Your task to perform on an android device: Turn on the flashlight Image 0: 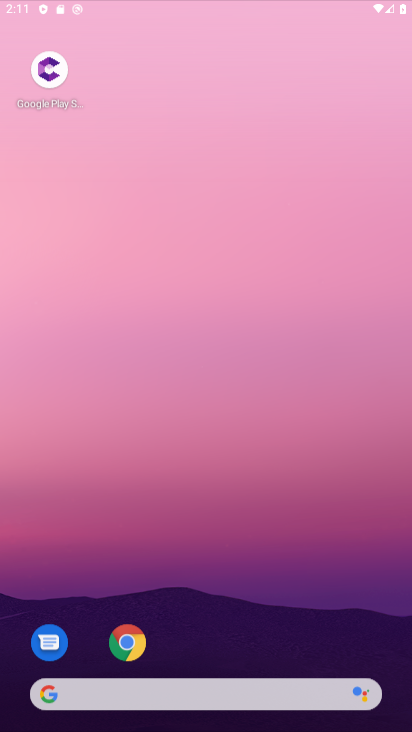
Step 0: press home button
Your task to perform on an android device: Turn on the flashlight Image 1: 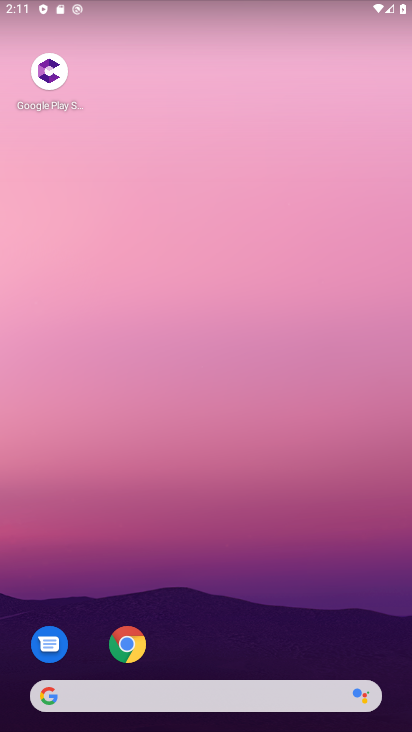
Step 1: task complete